Your task to perform on an android device: open a bookmark in the chrome app Image 0: 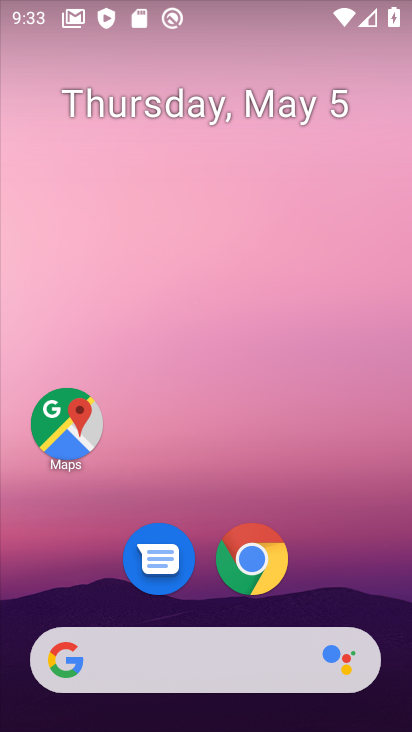
Step 0: click (255, 562)
Your task to perform on an android device: open a bookmark in the chrome app Image 1: 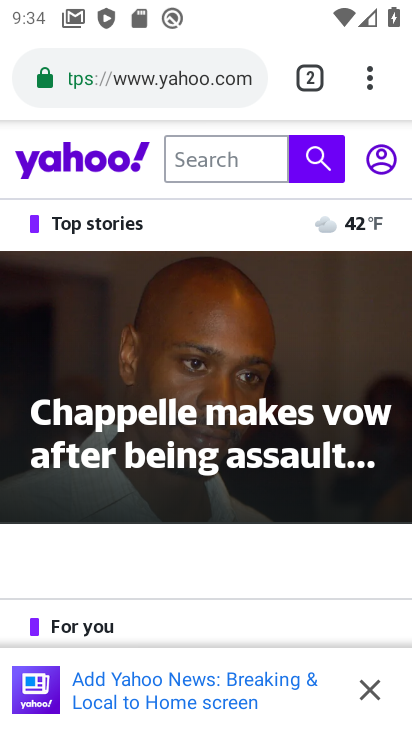
Step 1: click (368, 75)
Your task to perform on an android device: open a bookmark in the chrome app Image 2: 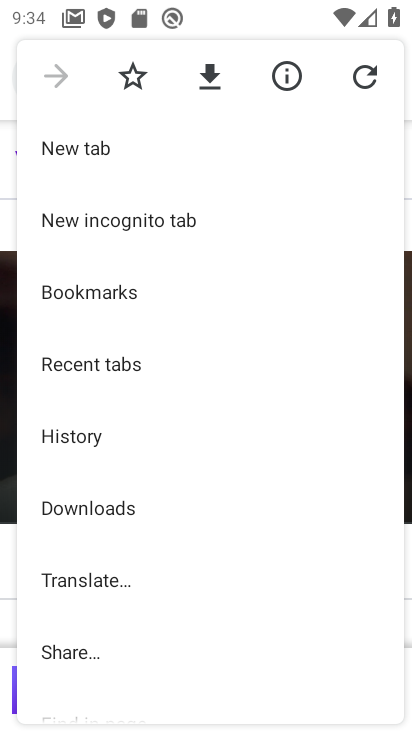
Step 2: click (108, 294)
Your task to perform on an android device: open a bookmark in the chrome app Image 3: 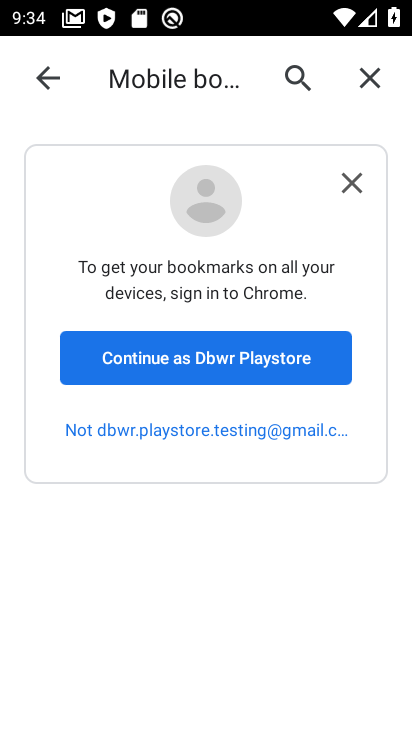
Step 3: click (341, 182)
Your task to perform on an android device: open a bookmark in the chrome app Image 4: 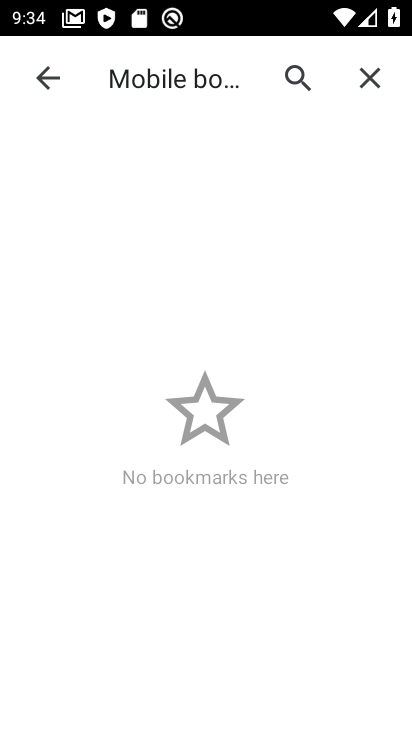
Step 4: task complete